Your task to perform on an android device: Go to sound settings Image 0: 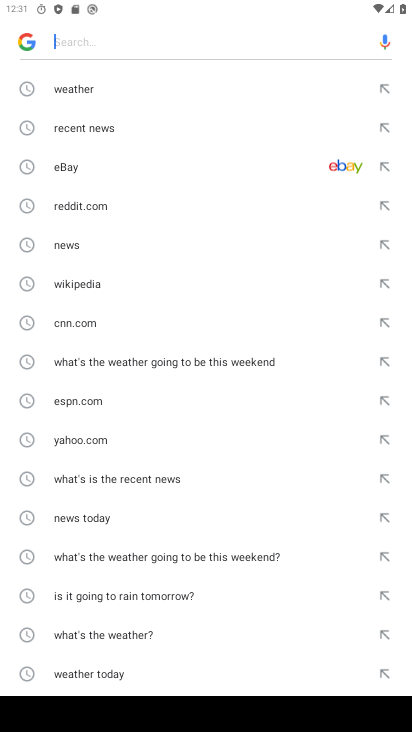
Step 0: press home button
Your task to perform on an android device: Go to sound settings Image 1: 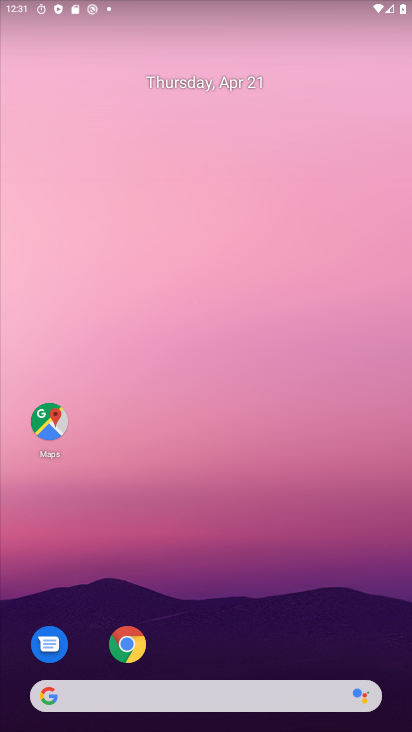
Step 1: drag from (186, 641) to (275, 65)
Your task to perform on an android device: Go to sound settings Image 2: 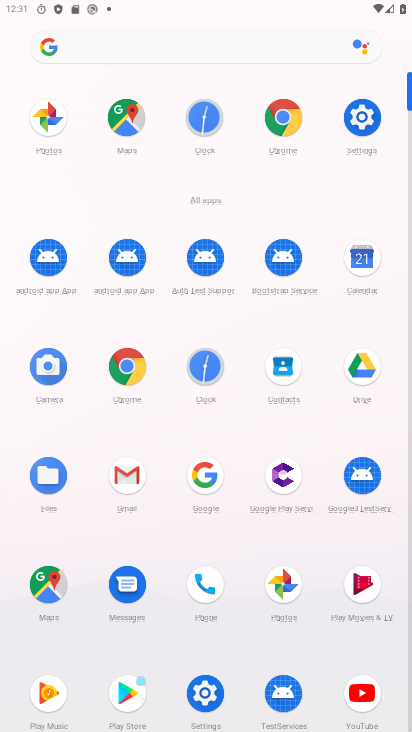
Step 2: click (361, 115)
Your task to perform on an android device: Go to sound settings Image 3: 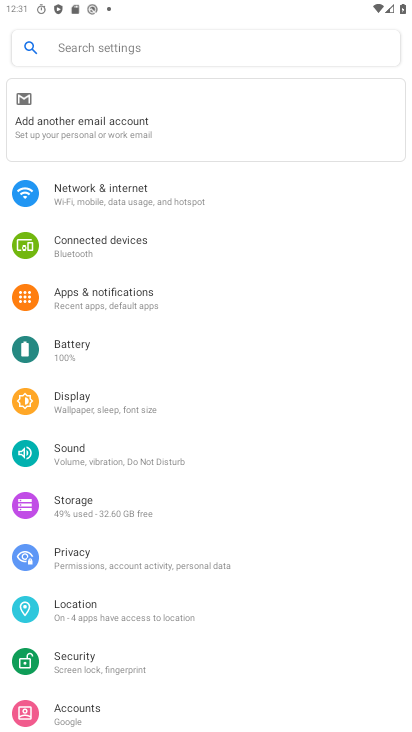
Step 3: click (84, 449)
Your task to perform on an android device: Go to sound settings Image 4: 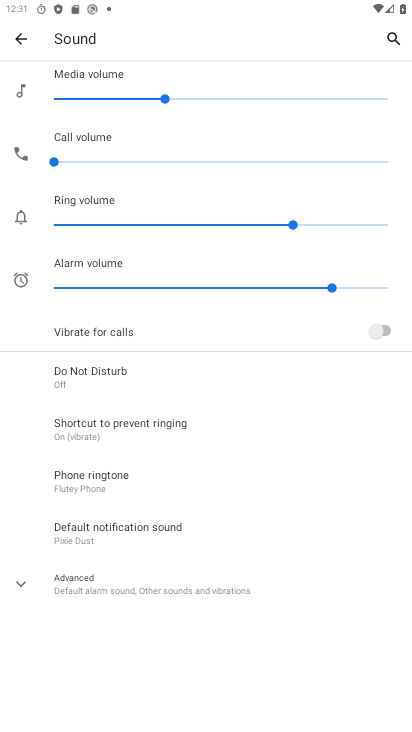
Step 4: task complete